Your task to perform on an android device: visit the assistant section in the google photos Image 0: 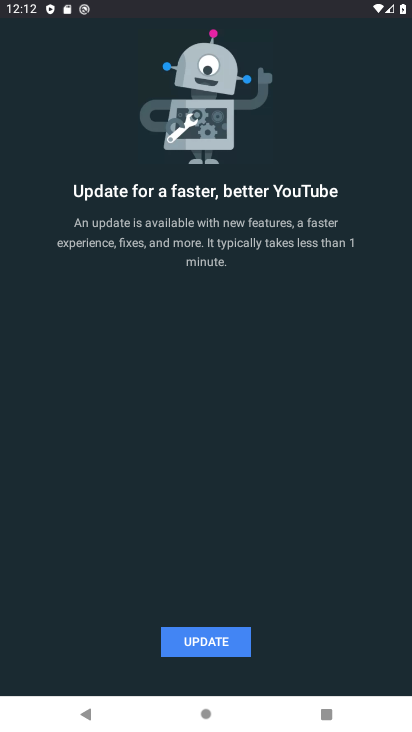
Step 0: press home button
Your task to perform on an android device: visit the assistant section in the google photos Image 1: 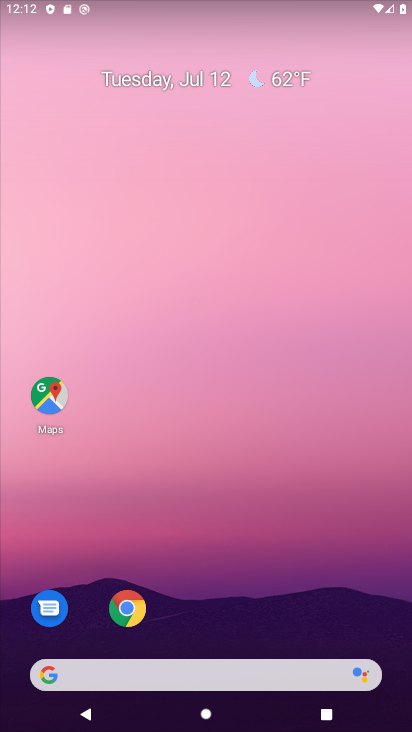
Step 1: drag from (283, 572) to (293, 31)
Your task to perform on an android device: visit the assistant section in the google photos Image 2: 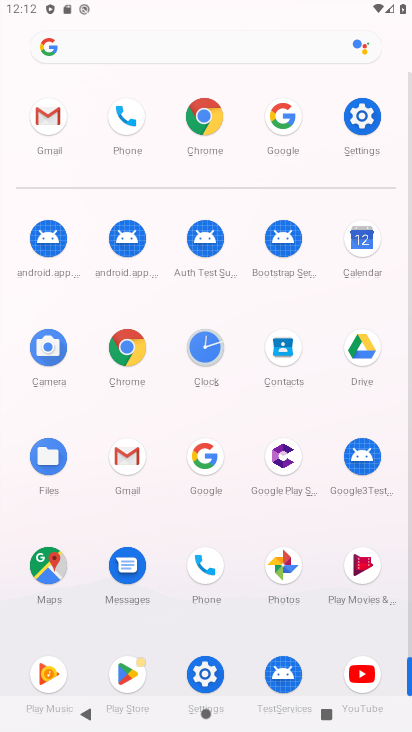
Step 2: click (286, 562)
Your task to perform on an android device: visit the assistant section in the google photos Image 3: 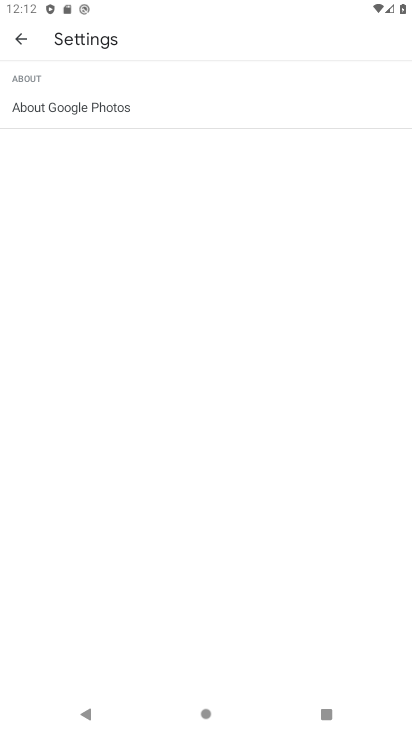
Step 3: press home button
Your task to perform on an android device: visit the assistant section in the google photos Image 4: 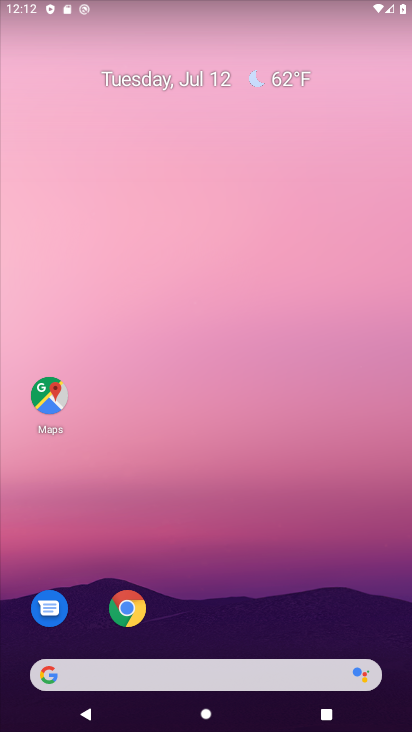
Step 4: drag from (312, 591) to (261, 88)
Your task to perform on an android device: visit the assistant section in the google photos Image 5: 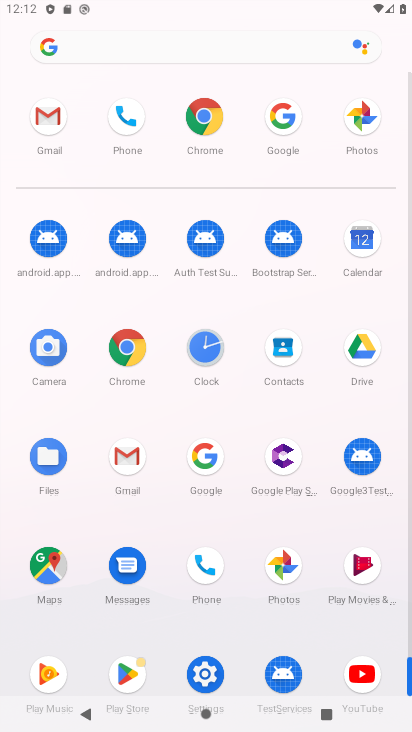
Step 5: click (288, 575)
Your task to perform on an android device: visit the assistant section in the google photos Image 6: 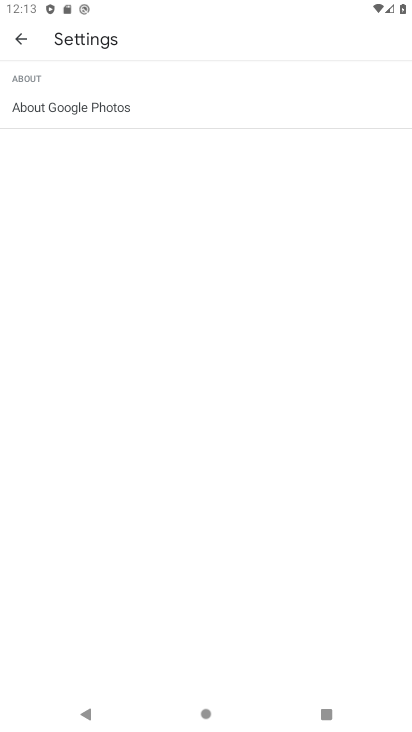
Step 6: click (31, 35)
Your task to perform on an android device: visit the assistant section in the google photos Image 7: 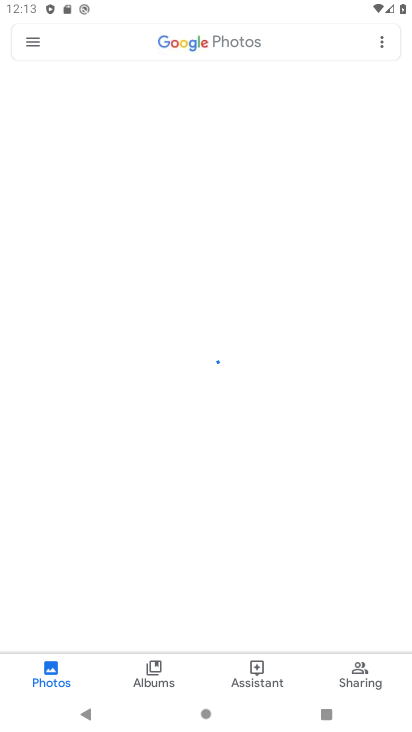
Step 7: click (253, 669)
Your task to perform on an android device: visit the assistant section in the google photos Image 8: 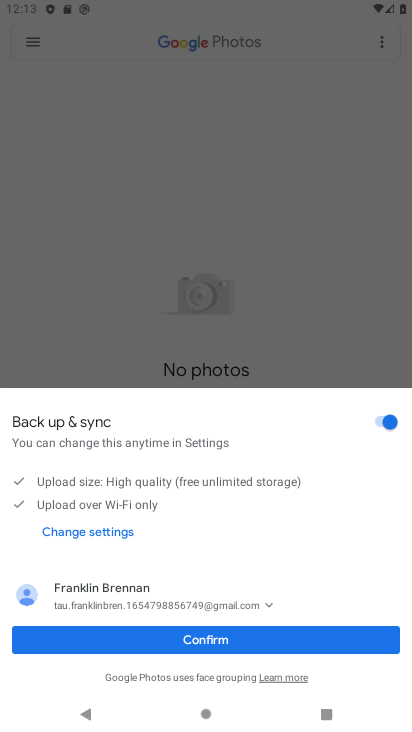
Step 8: task complete